Your task to perform on an android device: Clear all items from cart on target.com. Add "dell xps" to the cart on target.com, then select checkout. Image 0: 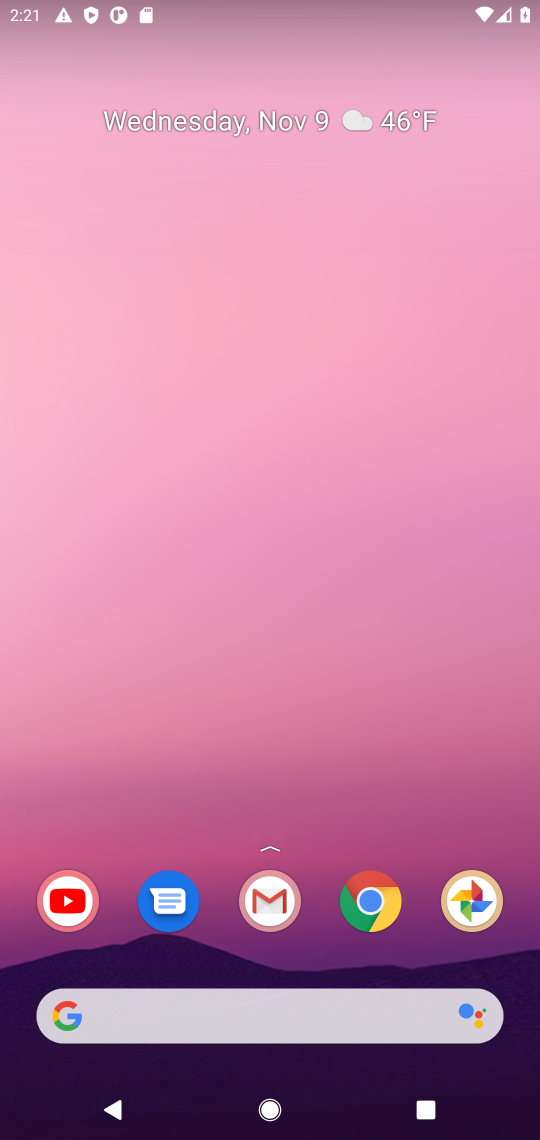
Step 0: click (371, 904)
Your task to perform on an android device: Clear all items from cart on target.com. Add "dell xps" to the cart on target.com, then select checkout. Image 1: 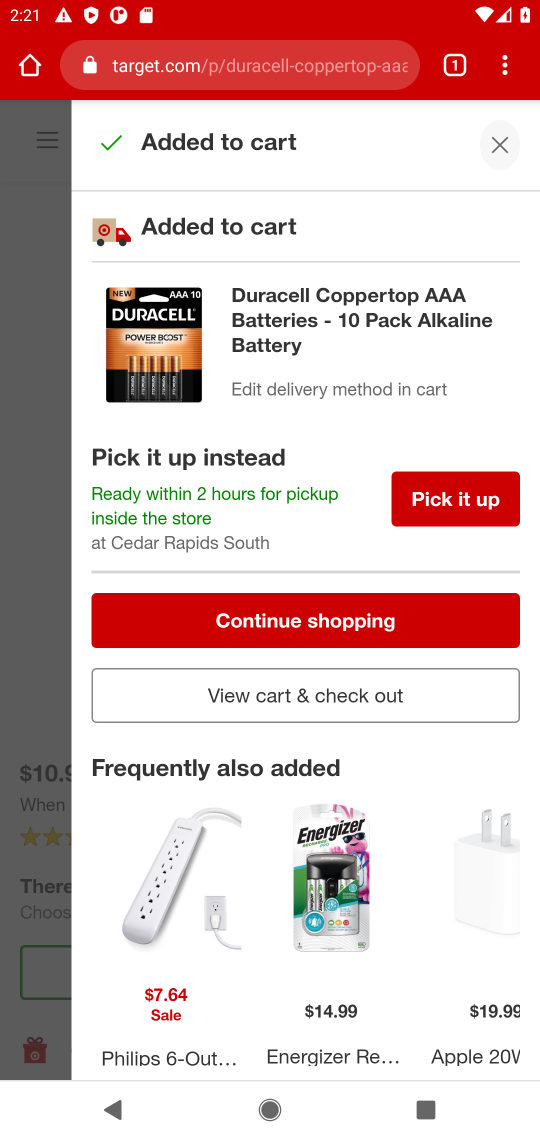
Step 1: click (504, 150)
Your task to perform on an android device: Clear all items from cart on target.com. Add "dell xps" to the cart on target.com, then select checkout. Image 2: 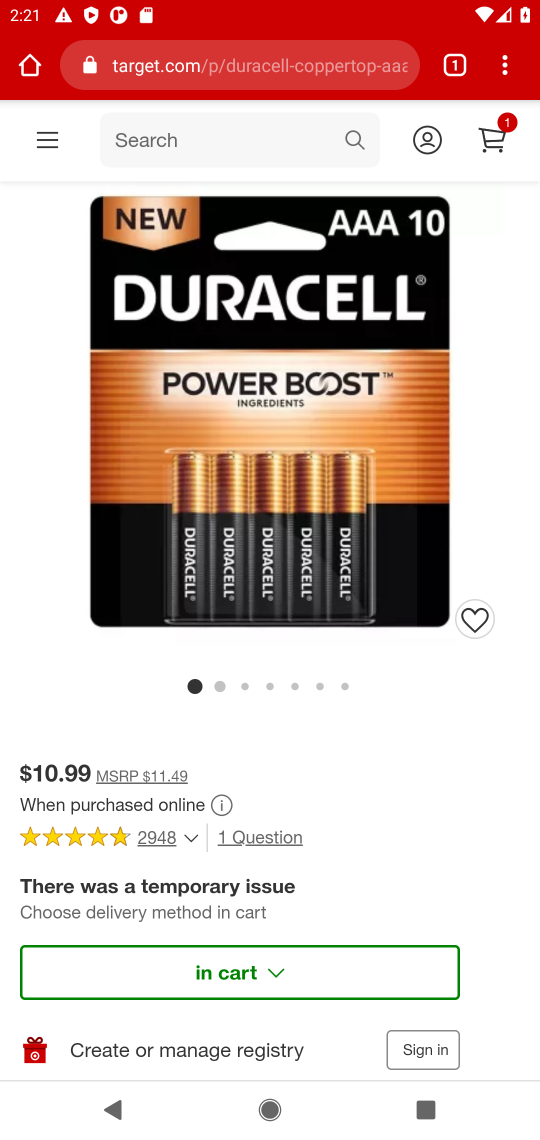
Step 2: click (505, 152)
Your task to perform on an android device: Clear all items from cart on target.com. Add "dell xps" to the cart on target.com, then select checkout. Image 3: 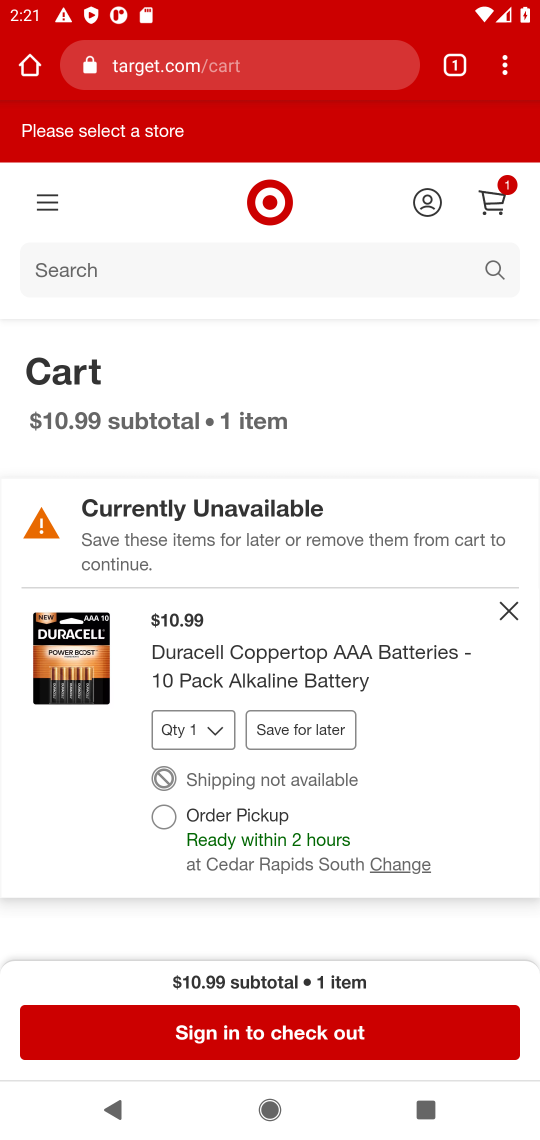
Step 3: click (511, 613)
Your task to perform on an android device: Clear all items from cart on target.com. Add "dell xps" to the cart on target.com, then select checkout. Image 4: 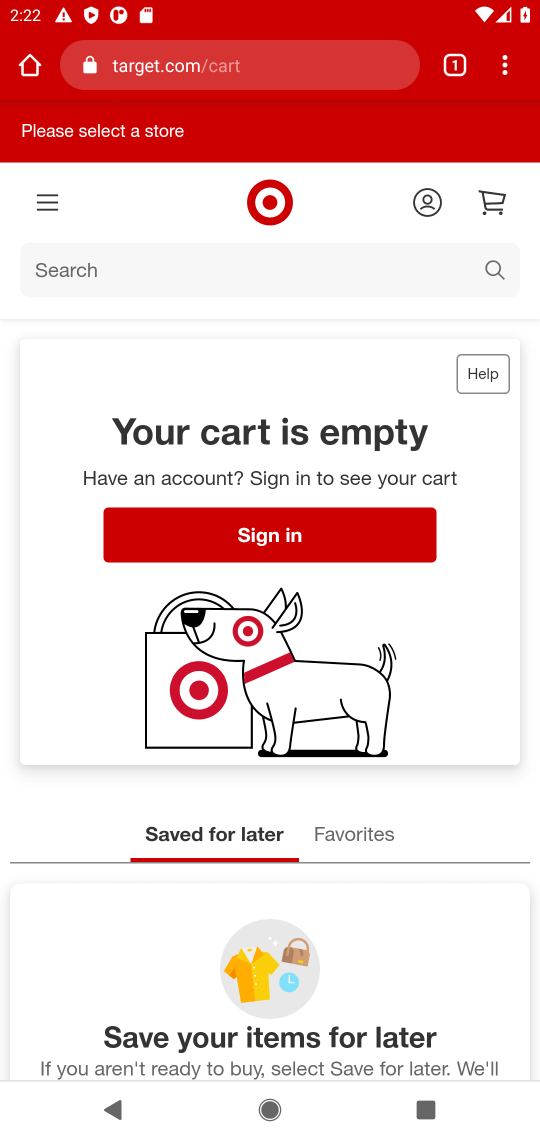
Step 4: click (284, 259)
Your task to perform on an android device: Clear all items from cart on target.com. Add "dell xps" to the cart on target.com, then select checkout. Image 5: 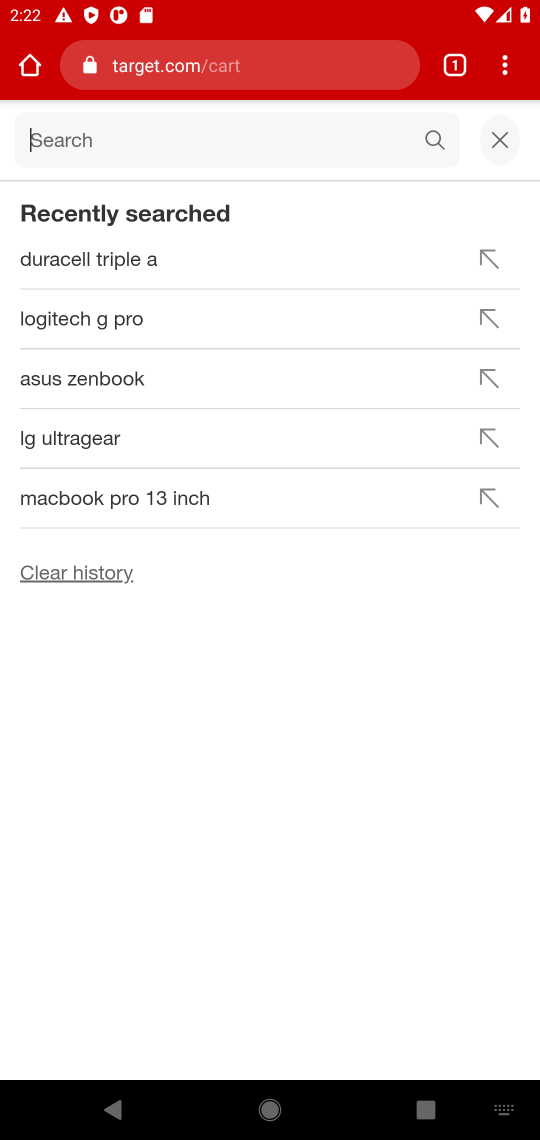
Step 5: type "dell xps"
Your task to perform on an android device: Clear all items from cart on target.com. Add "dell xps" to the cart on target.com, then select checkout. Image 6: 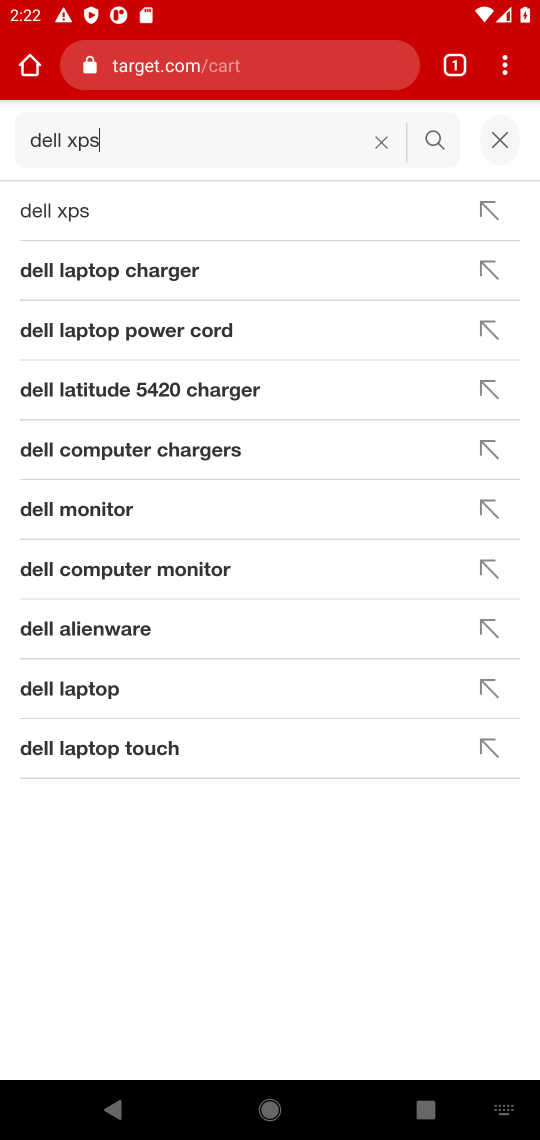
Step 6: press enter
Your task to perform on an android device: Clear all items from cart on target.com. Add "dell xps" to the cart on target.com, then select checkout. Image 7: 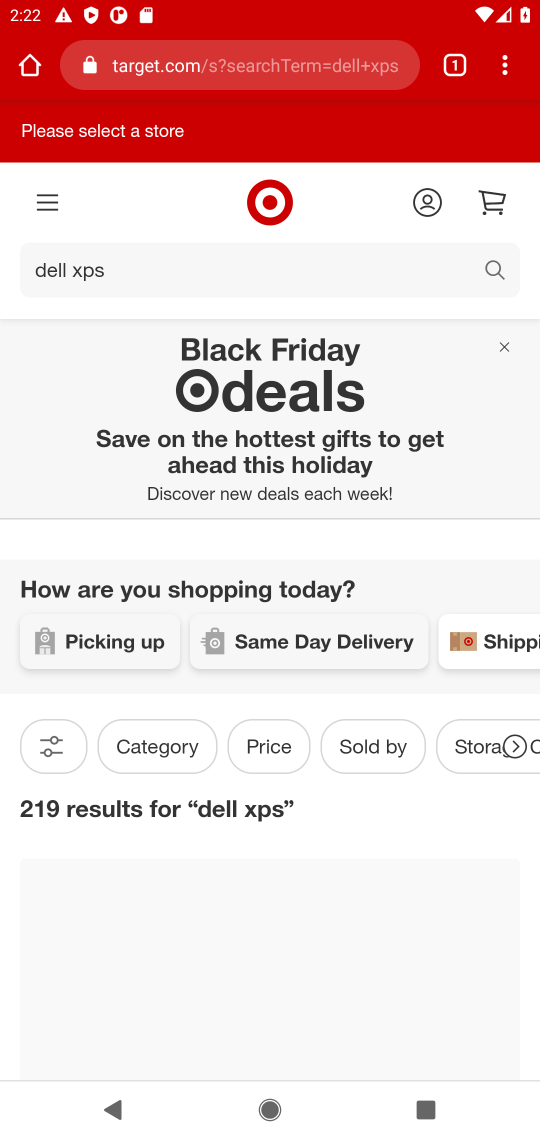
Step 7: task complete